Your task to perform on an android device: Set the phone to "Do not disturb". Image 0: 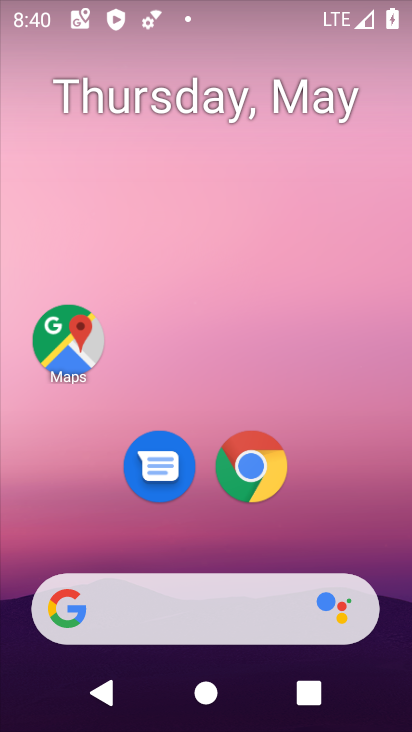
Step 0: drag from (344, 406) to (408, 23)
Your task to perform on an android device: Set the phone to "Do not disturb". Image 1: 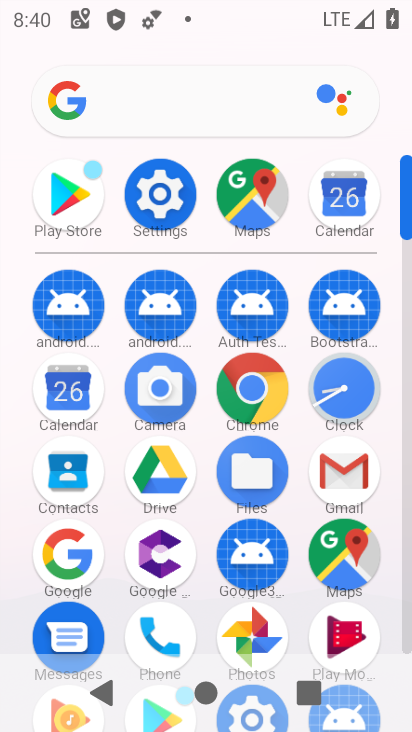
Step 1: click (157, 198)
Your task to perform on an android device: Set the phone to "Do not disturb". Image 2: 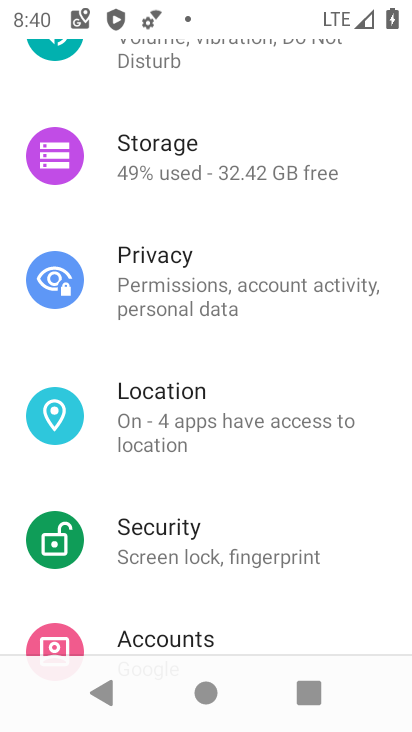
Step 2: drag from (314, 235) to (338, 498)
Your task to perform on an android device: Set the phone to "Do not disturb". Image 3: 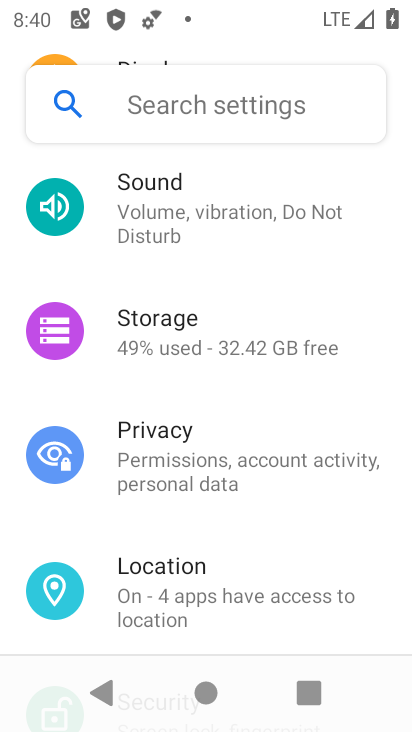
Step 3: click (173, 230)
Your task to perform on an android device: Set the phone to "Do not disturb". Image 4: 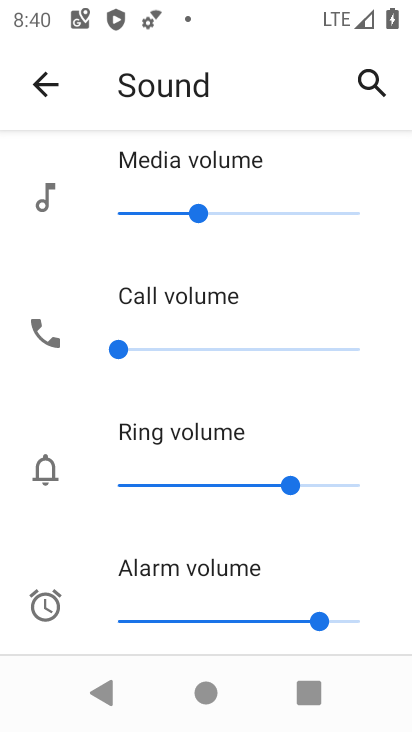
Step 4: drag from (237, 511) to (220, 107)
Your task to perform on an android device: Set the phone to "Do not disturb". Image 5: 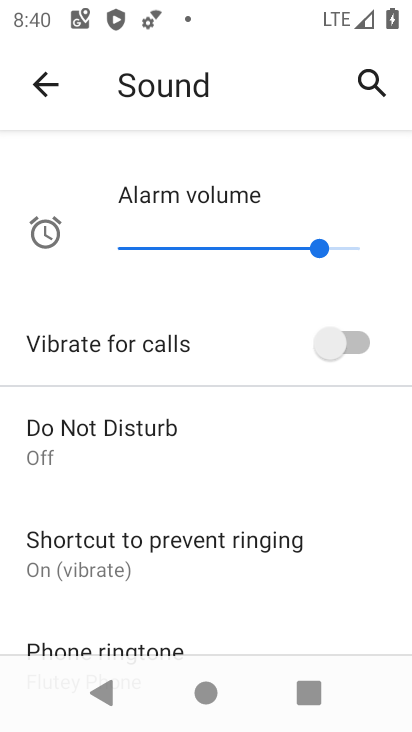
Step 5: drag from (206, 449) to (188, 213)
Your task to perform on an android device: Set the phone to "Do not disturb". Image 6: 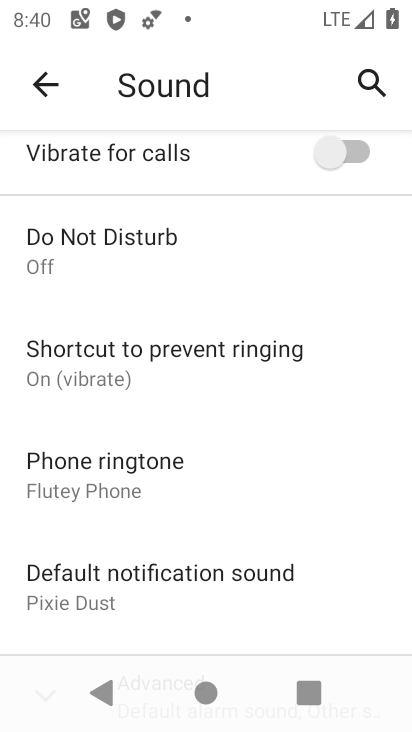
Step 6: click (116, 244)
Your task to perform on an android device: Set the phone to "Do not disturb". Image 7: 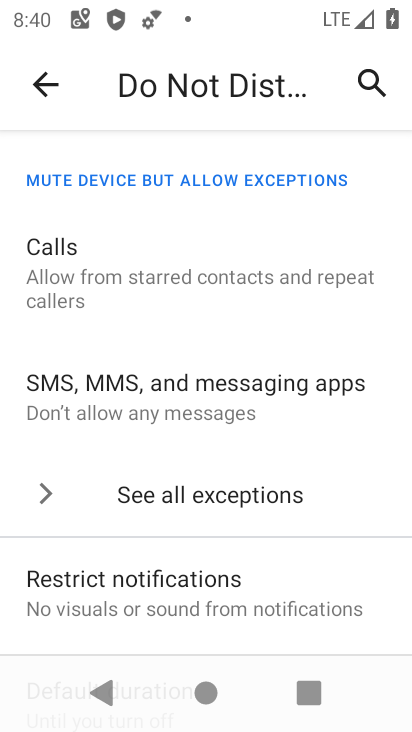
Step 7: drag from (225, 369) to (206, 89)
Your task to perform on an android device: Set the phone to "Do not disturb". Image 8: 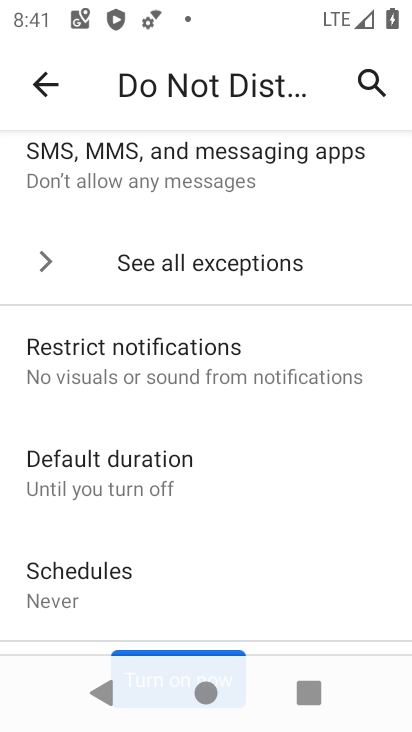
Step 8: drag from (189, 499) to (164, 137)
Your task to perform on an android device: Set the phone to "Do not disturb". Image 9: 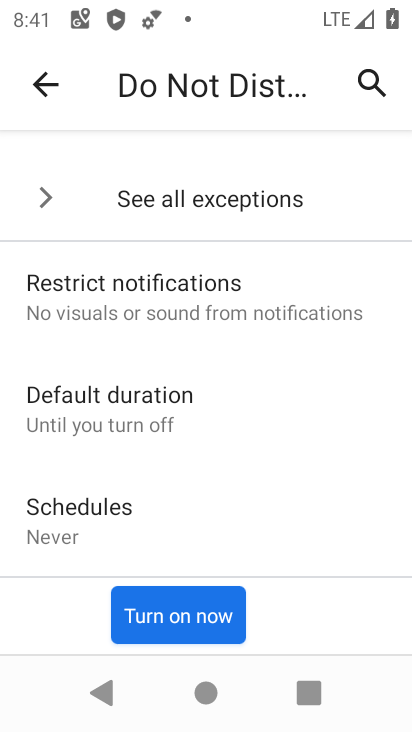
Step 9: click (157, 599)
Your task to perform on an android device: Set the phone to "Do not disturb". Image 10: 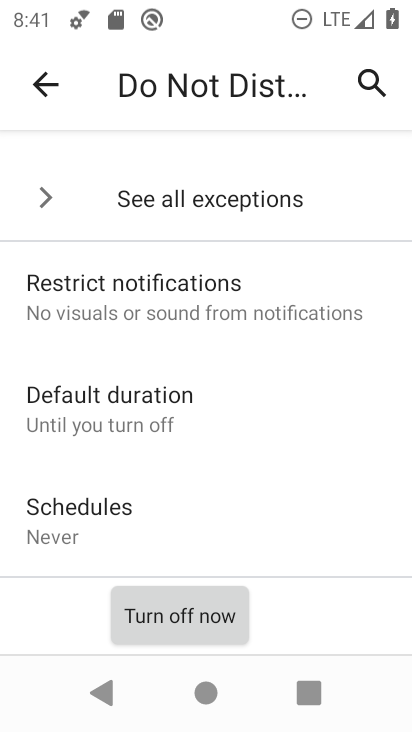
Step 10: task complete